Your task to perform on an android device: Open Maps and search for coffee Image 0: 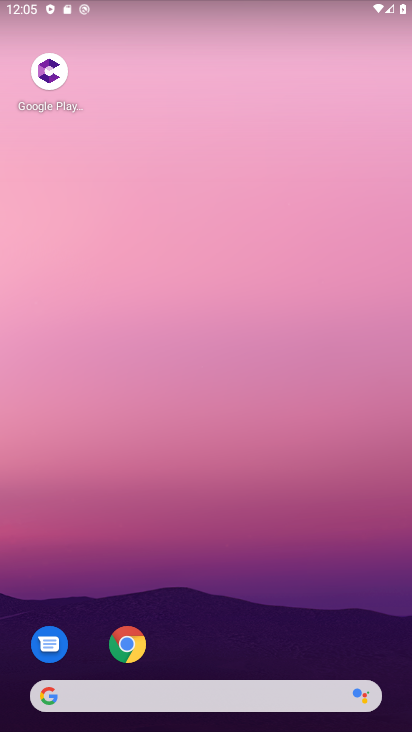
Step 0: drag from (322, 598) to (365, 14)
Your task to perform on an android device: Open Maps and search for coffee Image 1: 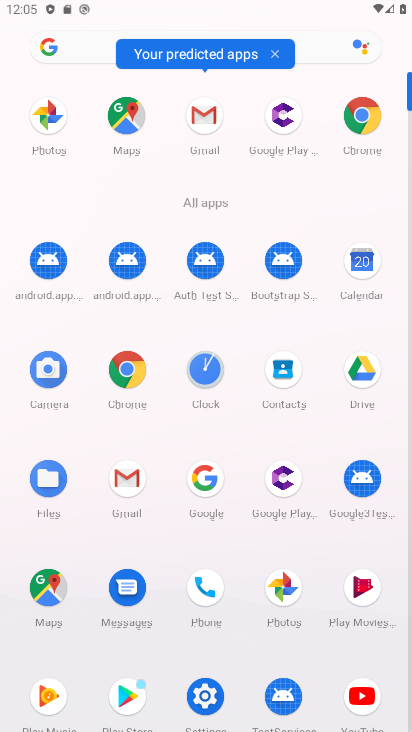
Step 1: click (125, 118)
Your task to perform on an android device: Open Maps and search for coffee Image 2: 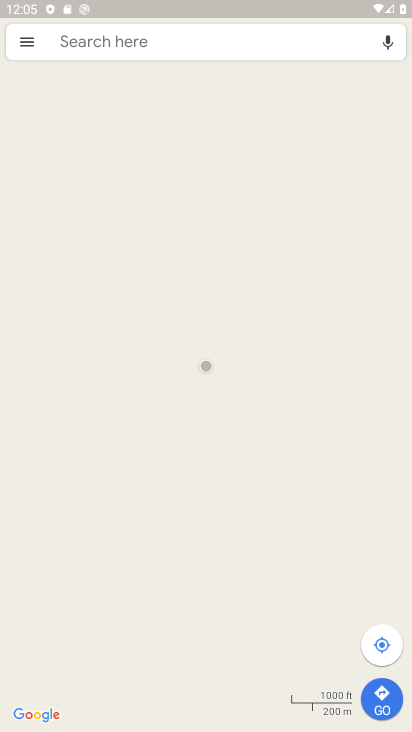
Step 2: click (99, 40)
Your task to perform on an android device: Open Maps and search for coffee Image 3: 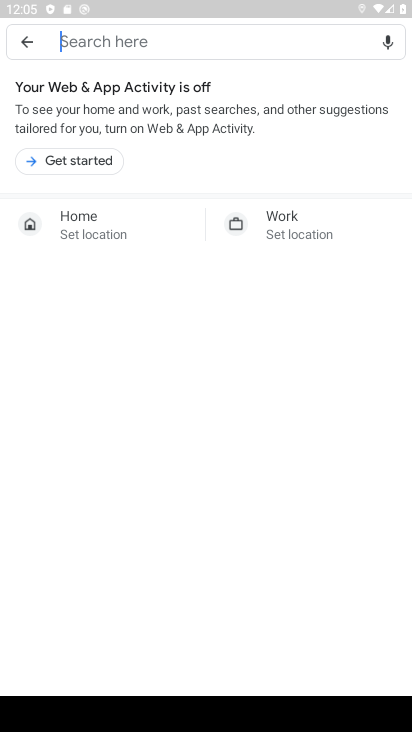
Step 3: type "coffee"
Your task to perform on an android device: Open Maps and search for coffee Image 4: 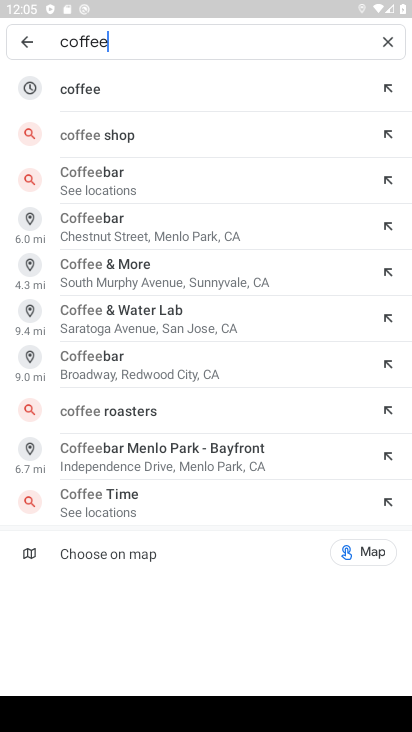
Step 4: click (81, 95)
Your task to perform on an android device: Open Maps and search for coffee Image 5: 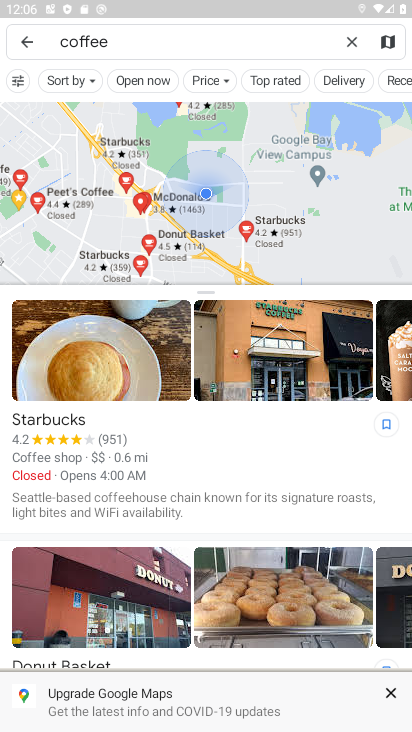
Step 5: task complete